Your task to perform on an android device: add a label to a message in the gmail app Image 0: 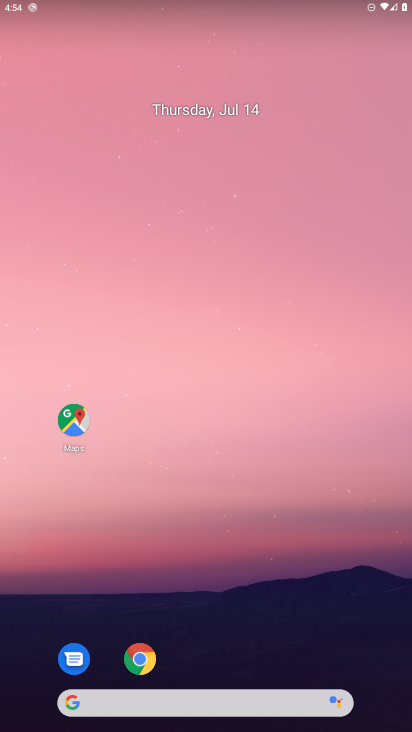
Step 0: press home button
Your task to perform on an android device: add a label to a message in the gmail app Image 1: 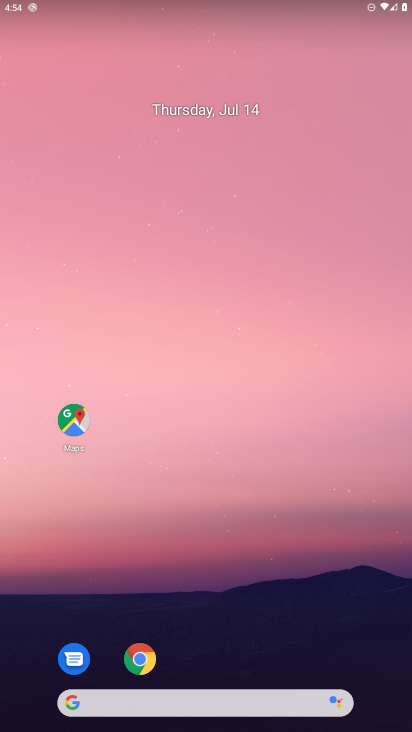
Step 1: drag from (215, 661) to (232, 74)
Your task to perform on an android device: add a label to a message in the gmail app Image 2: 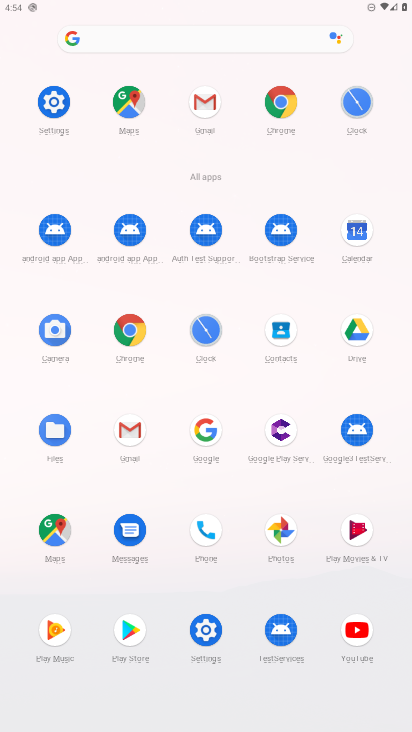
Step 2: click (204, 98)
Your task to perform on an android device: add a label to a message in the gmail app Image 3: 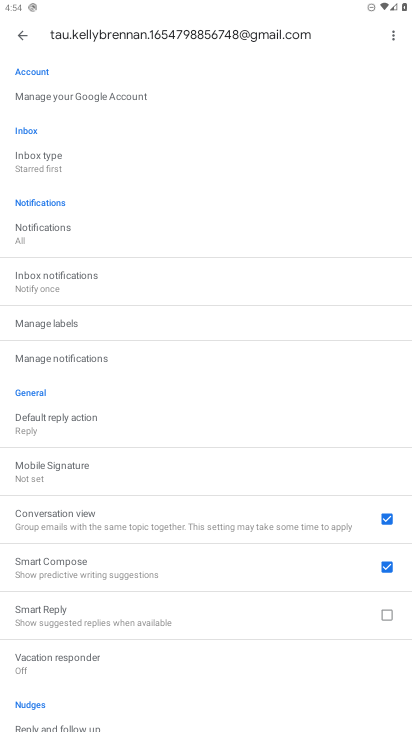
Step 3: click (19, 31)
Your task to perform on an android device: add a label to a message in the gmail app Image 4: 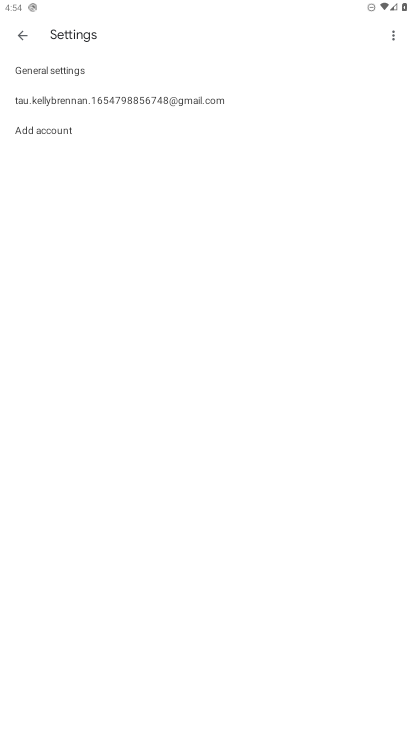
Step 4: click (28, 35)
Your task to perform on an android device: add a label to a message in the gmail app Image 5: 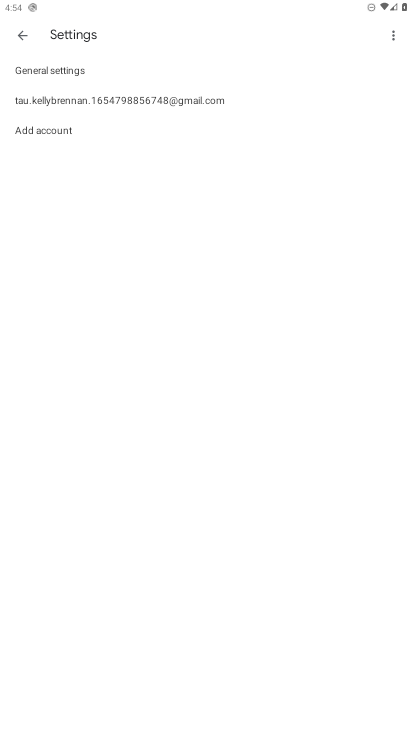
Step 5: click (25, 31)
Your task to perform on an android device: add a label to a message in the gmail app Image 6: 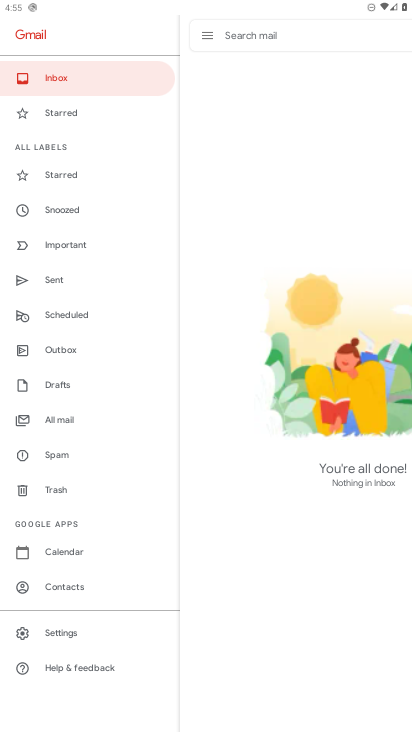
Step 6: task complete